Your task to perform on an android device: make emails show in primary in the gmail app Image 0: 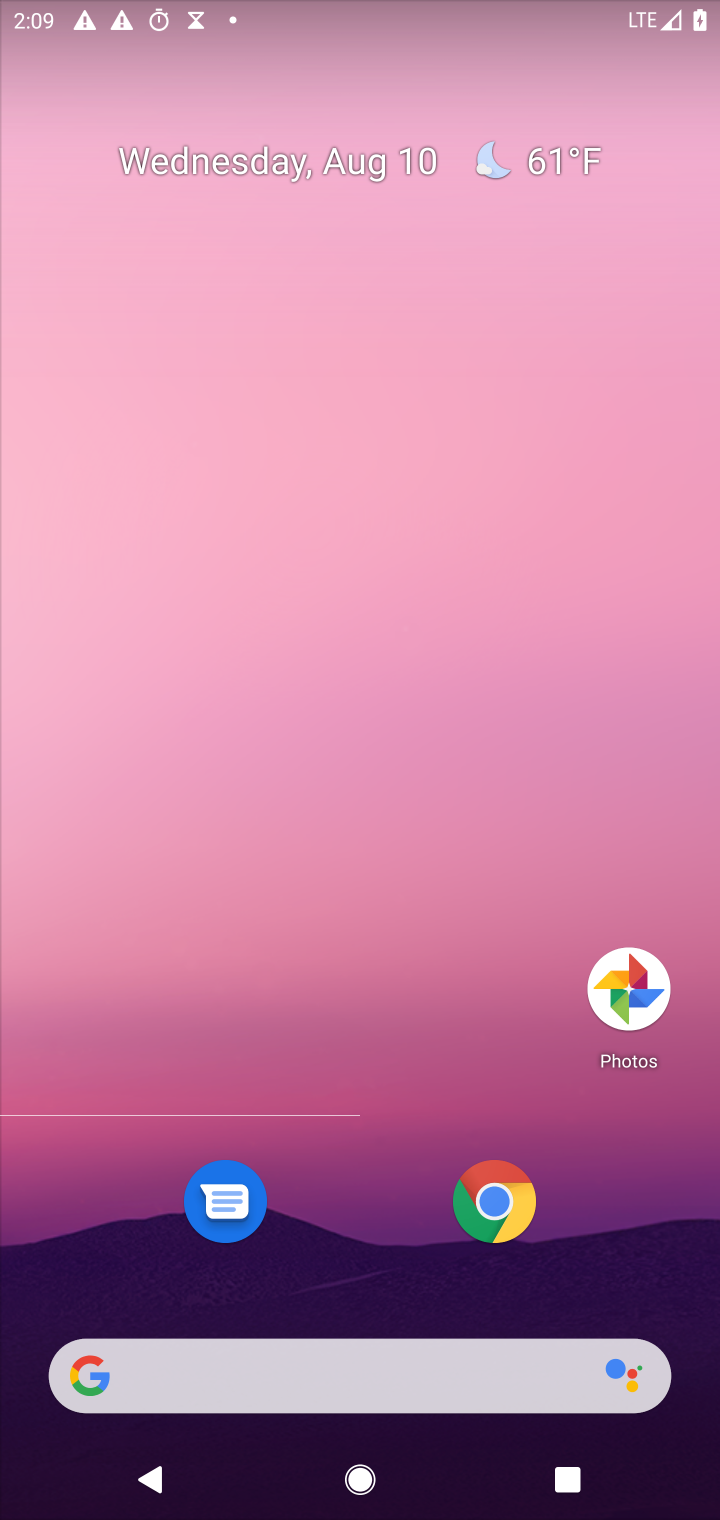
Step 0: drag from (373, 1212) to (330, 0)
Your task to perform on an android device: make emails show in primary in the gmail app Image 1: 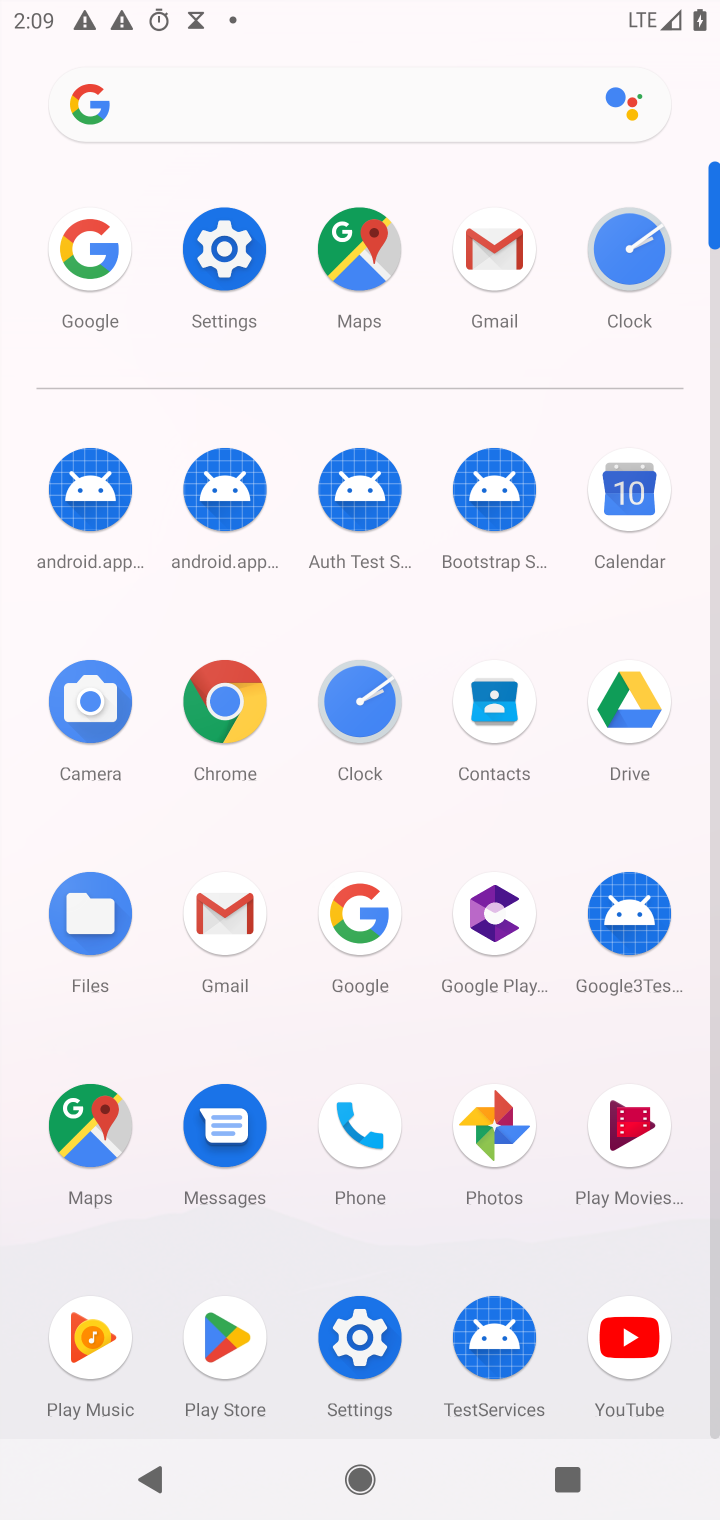
Step 1: click (468, 255)
Your task to perform on an android device: make emails show in primary in the gmail app Image 2: 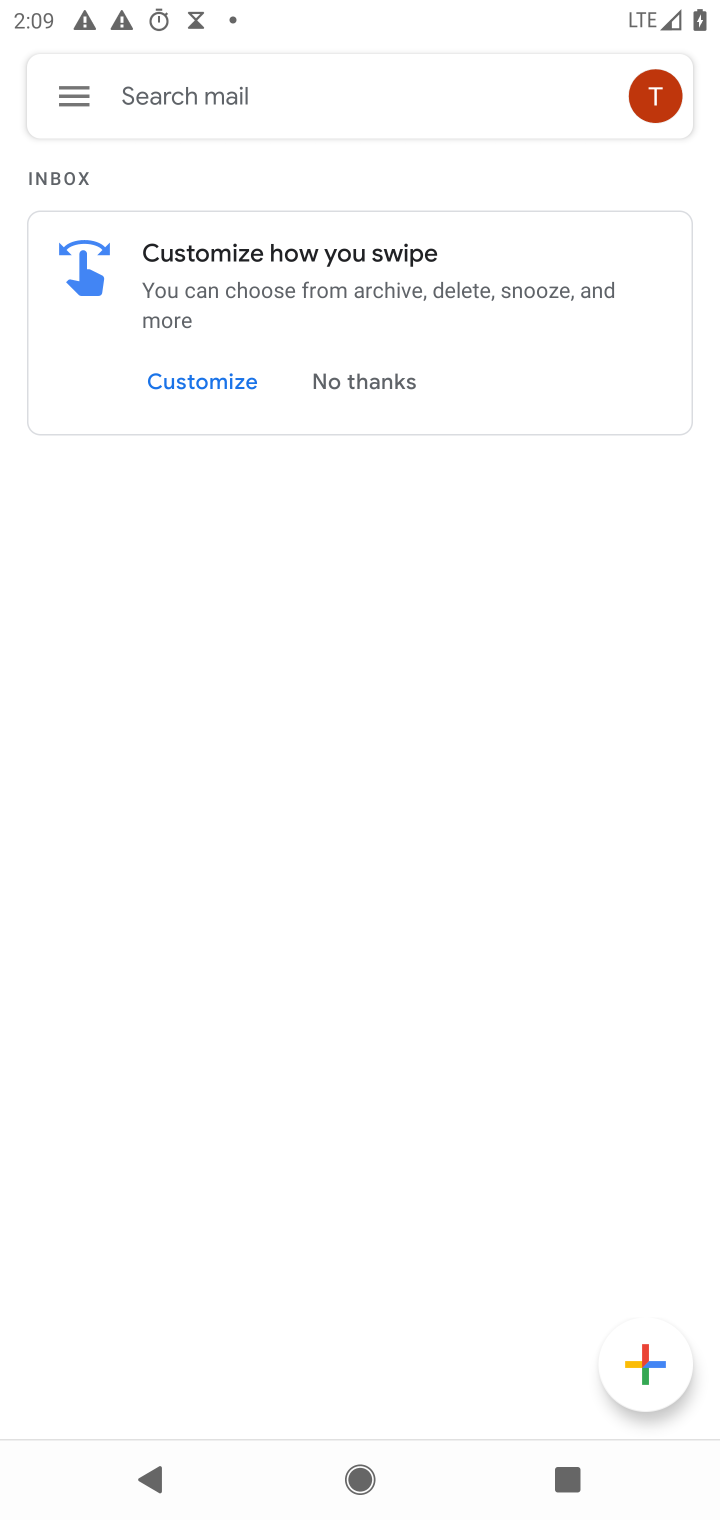
Step 2: click (77, 110)
Your task to perform on an android device: make emails show in primary in the gmail app Image 3: 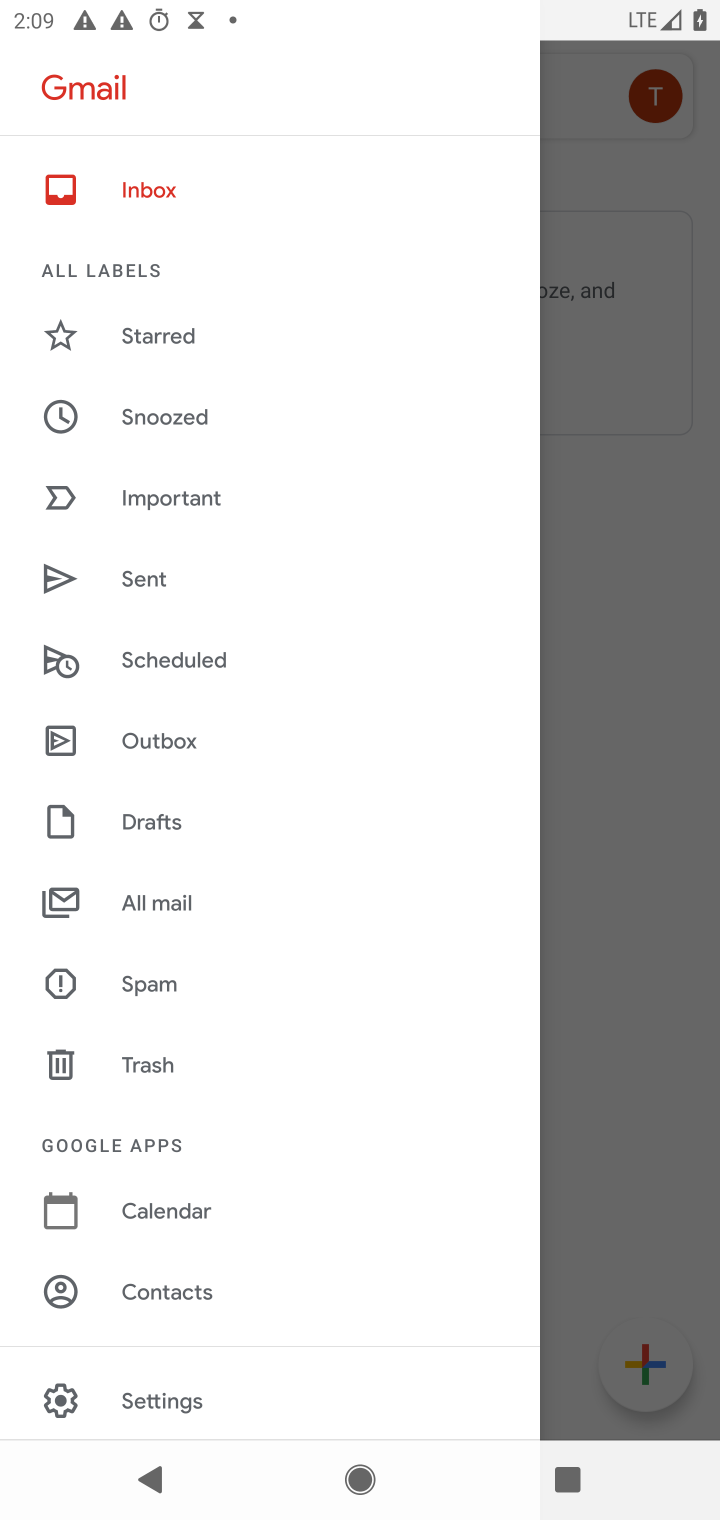
Step 3: click (174, 1389)
Your task to perform on an android device: make emails show in primary in the gmail app Image 4: 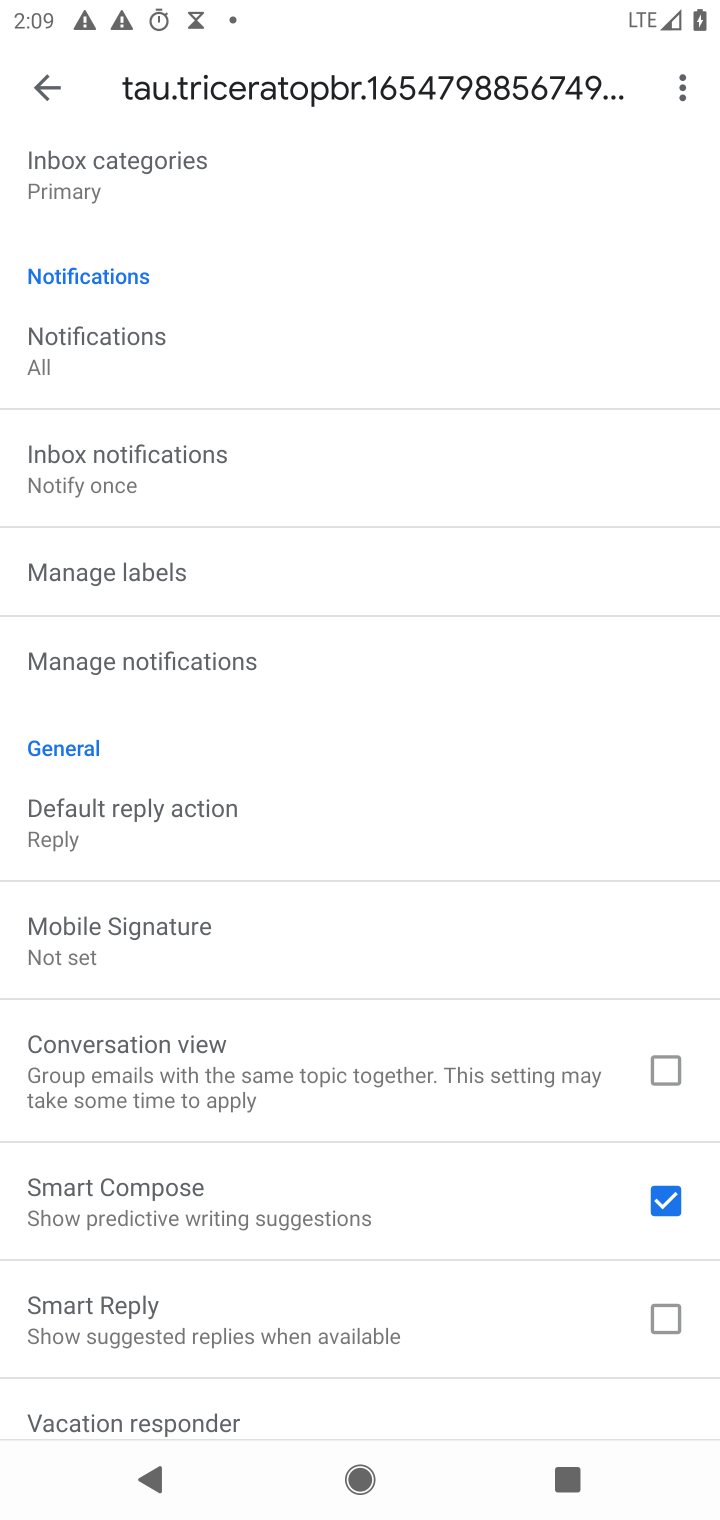
Step 4: task complete